Your task to perform on an android device: visit the assistant section in the google photos Image 0: 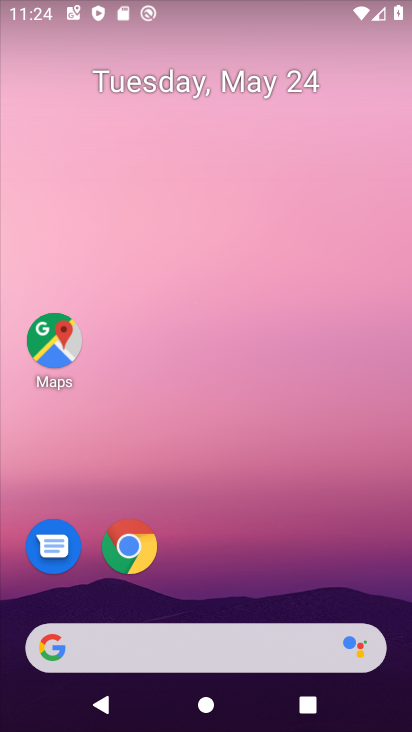
Step 0: drag from (209, 558) to (195, 191)
Your task to perform on an android device: visit the assistant section in the google photos Image 1: 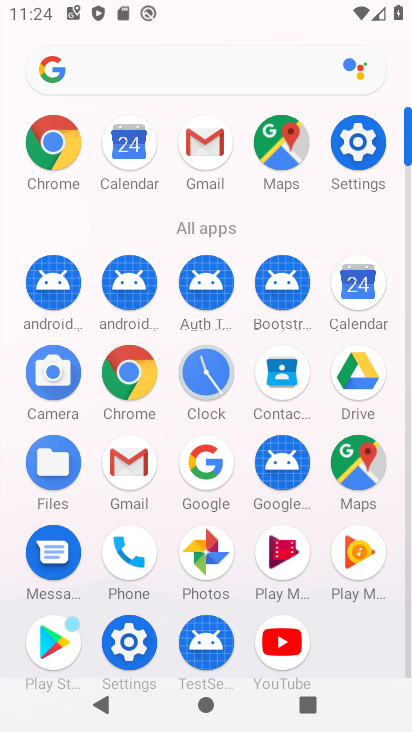
Step 1: click (205, 562)
Your task to perform on an android device: visit the assistant section in the google photos Image 2: 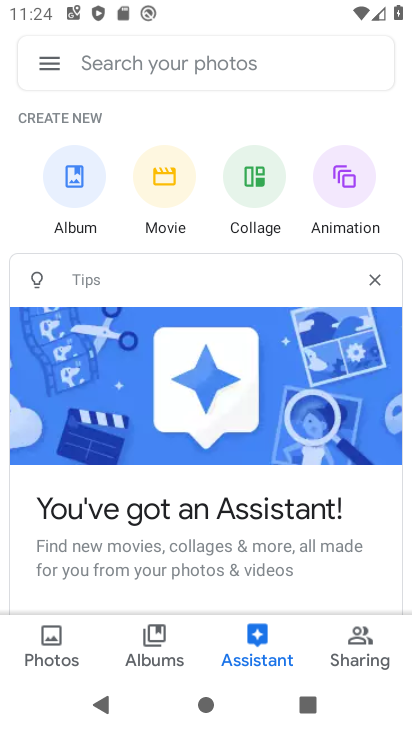
Step 2: task complete